Your task to perform on an android device: install app "Google Home" Image 0: 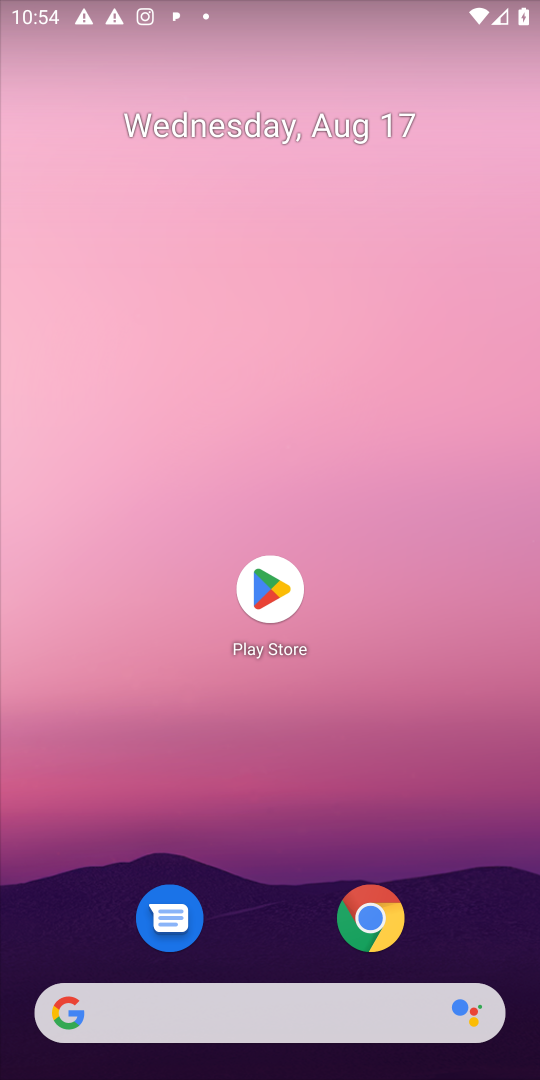
Step 0: click (263, 595)
Your task to perform on an android device: install app "Google Home" Image 1: 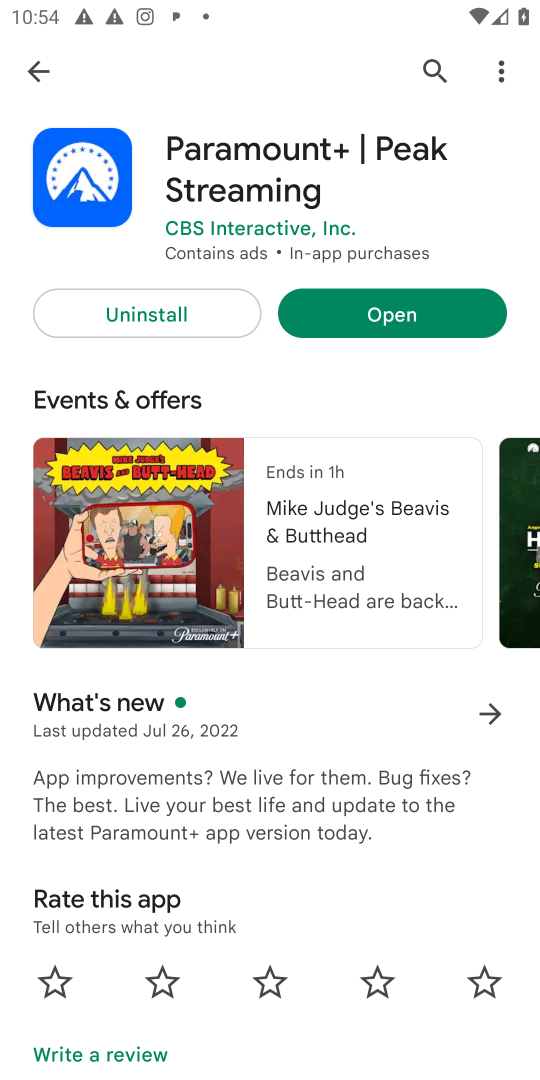
Step 1: click (426, 72)
Your task to perform on an android device: install app "Google Home" Image 2: 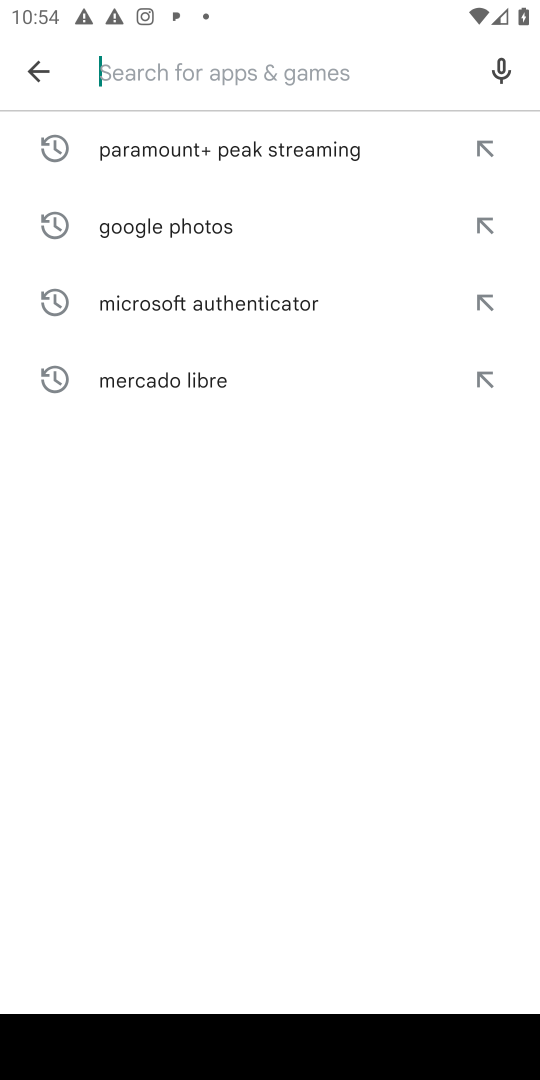
Step 2: type "Google Home"
Your task to perform on an android device: install app "Google Home" Image 3: 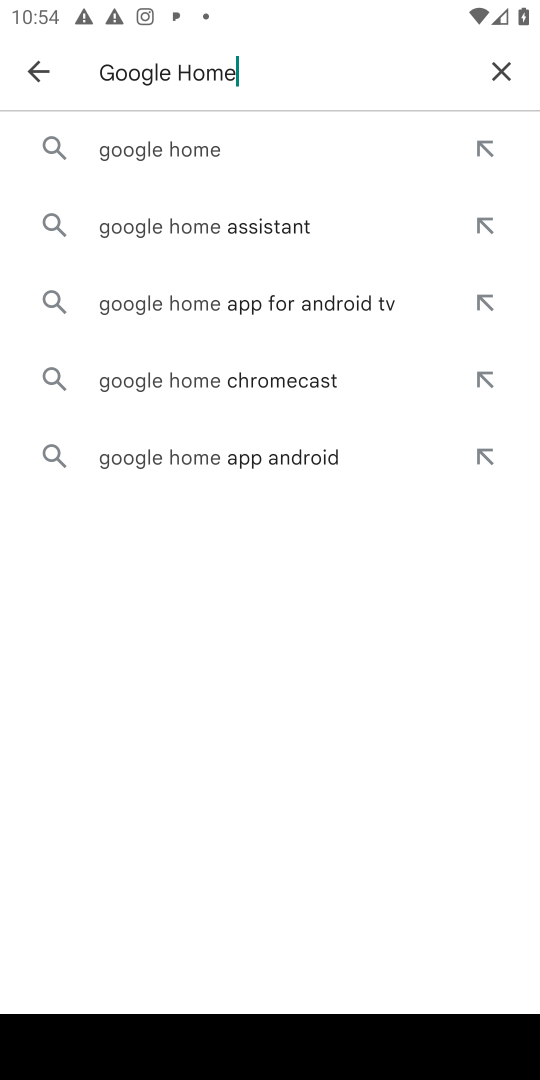
Step 3: click (175, 134)
Your task to perform on an android device: install app "Google Home" Image 4: 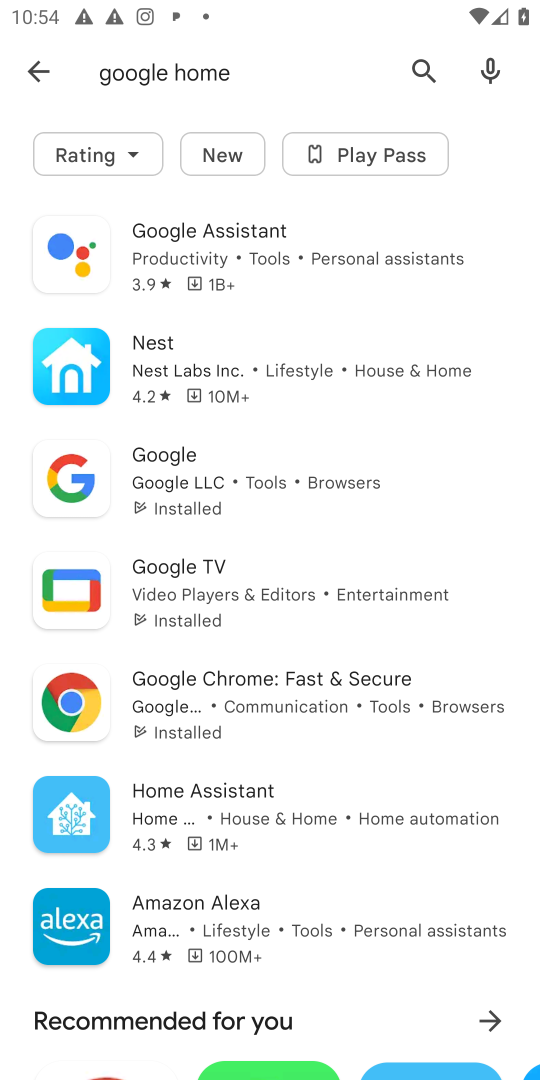
Step 4: task complete